Your task to perform on an android device: open a bookmark in the chrome app Image 0: 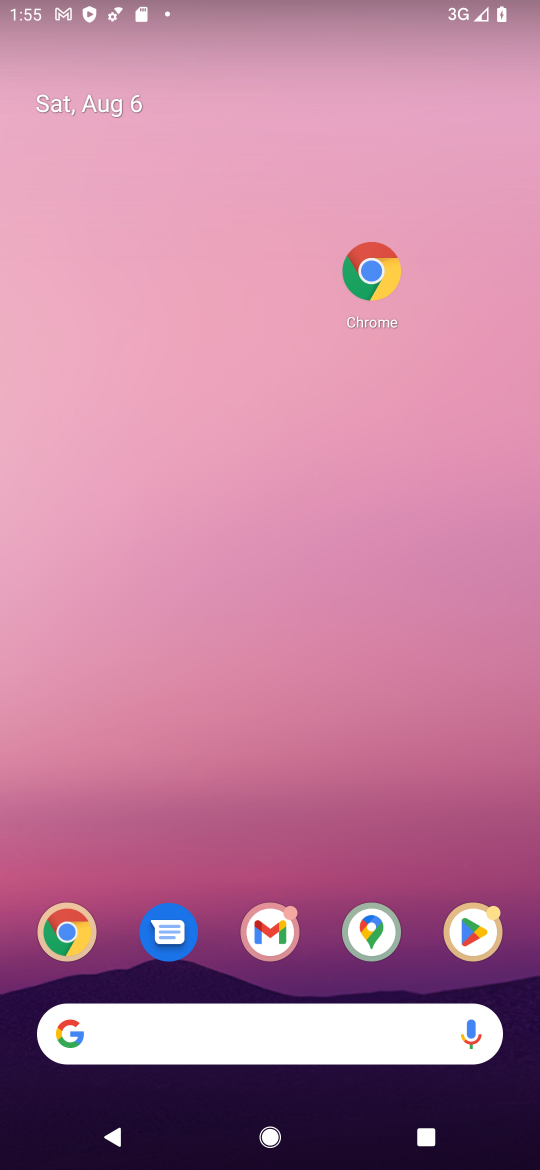
Step 0: drag from (227, 957) to (173, 5)
Your task to perform on an android device: open a bookmark in the chrome app Image 1: 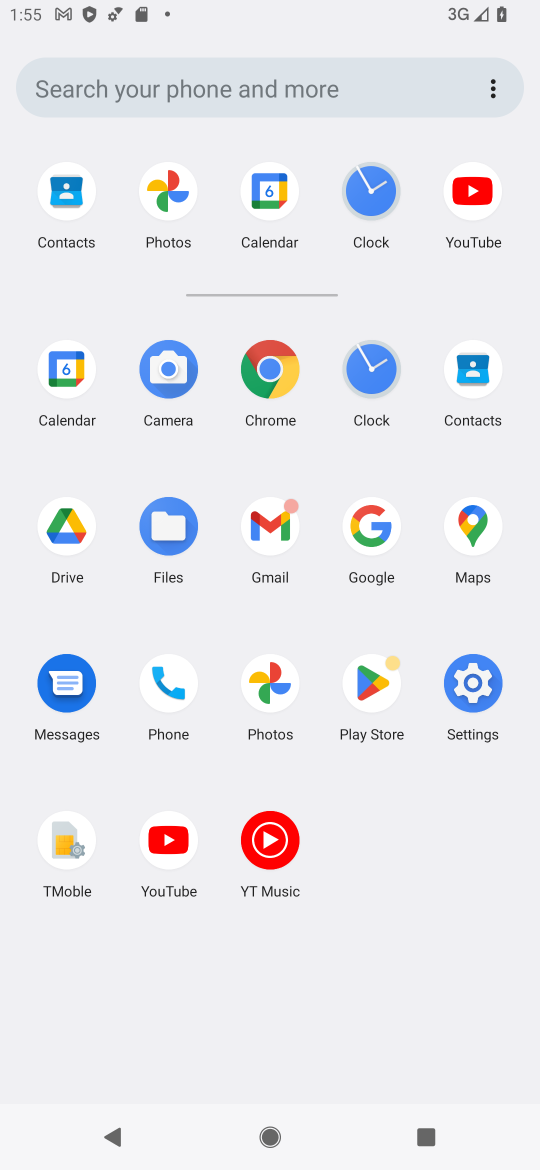
Step 1: click (269, 372)
Your task to perform on an android device: open a bookmark in the chrome app Image 2: 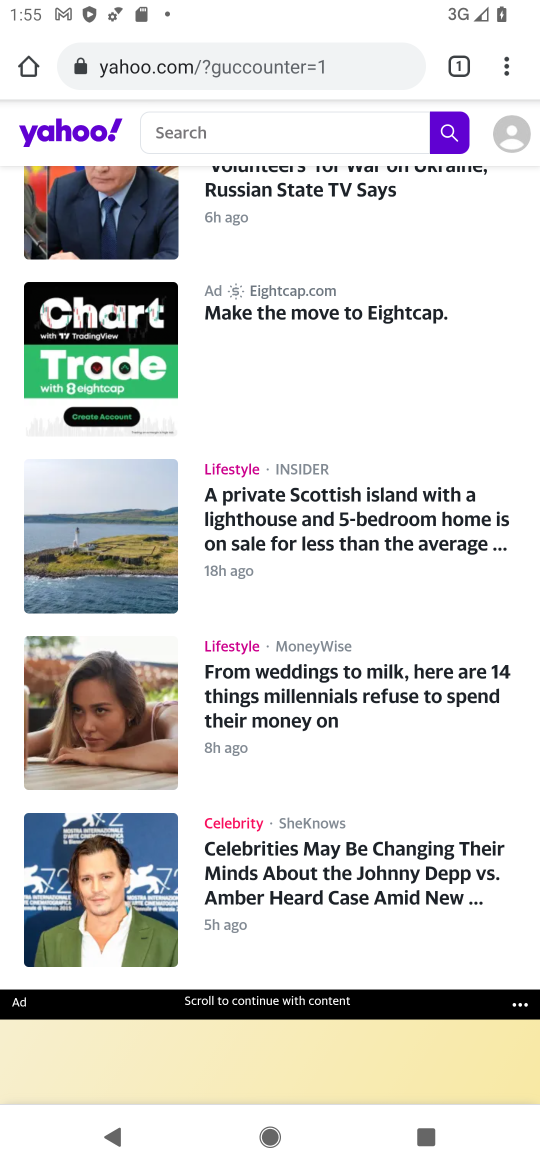
Step 2: task complete